Your task to perform on an android device: Show me recent news Image 0: 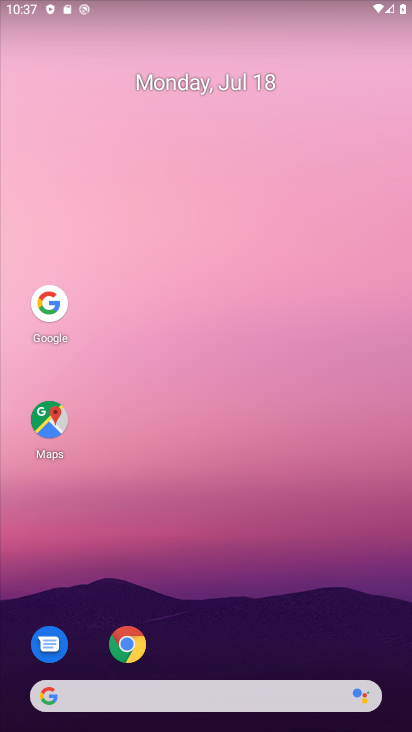
Step 0: click (39, 301)
Your task to perform on an android device: Show me recent news Image 1: 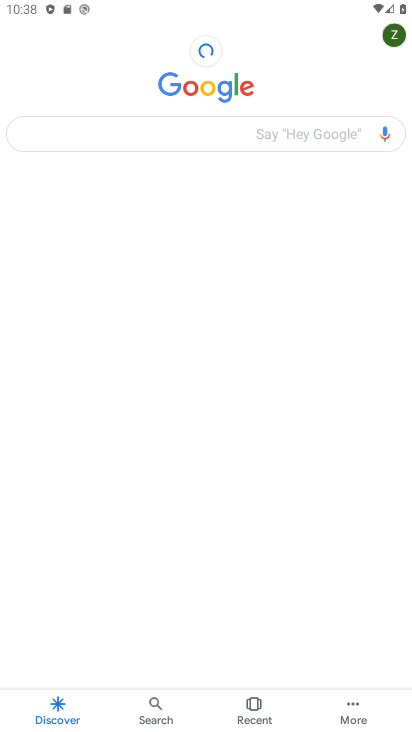
Step 1: click (245, 124)
Your task to perform on an android device: Show me recent news Image 2: 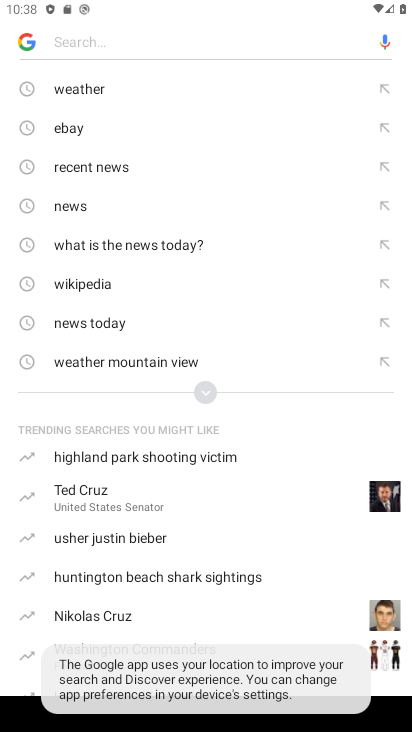
Step 2: click (152, 177)
Your task to perform on an android device: Show me recent news Image 3: 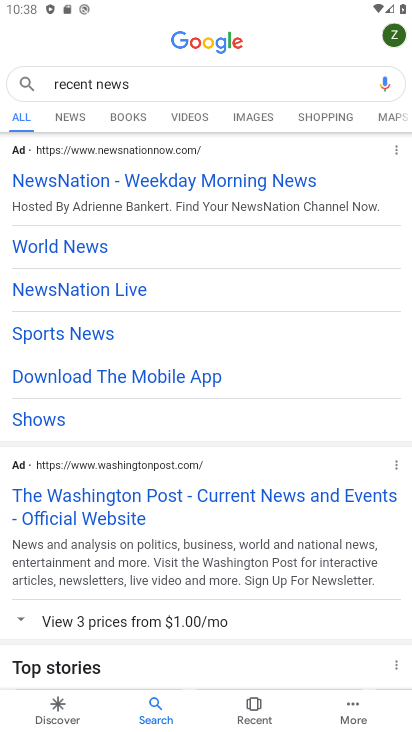
Step 3: task complete